Your task to perform on an android device: Open accessibility settings Image 0: 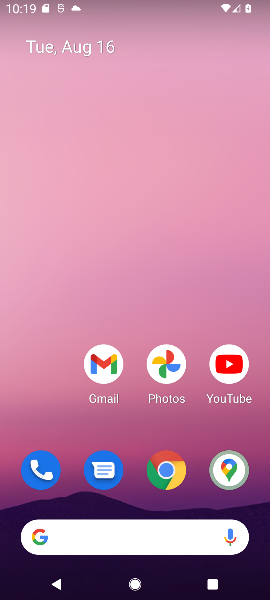
Step 0: drag from (56, 384) to (129, 0)
Your task to perform on an android device: Open accessibility settings Image 1: 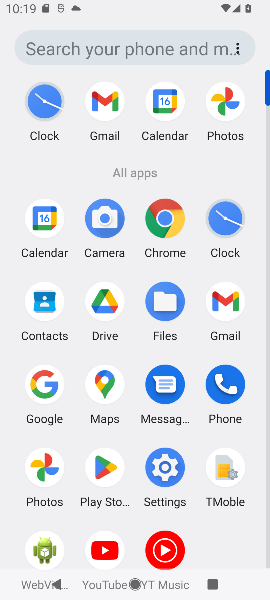
Step 1: click (167, 467)
Your task to perform on an android device: Open accessibility settings Image 2: 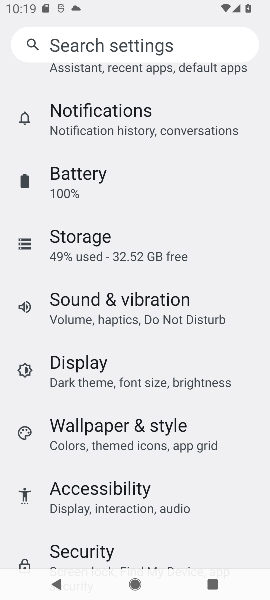
Step 2: click (133, 500)
Your task to perform on an android device: Open accessibility settings Image 3: 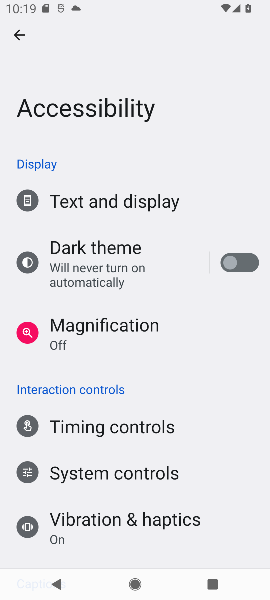
Step 3: task complete